Your task to perform on an android device: Open the calendar app, open the side menu, and click the "Day" option Image 0: 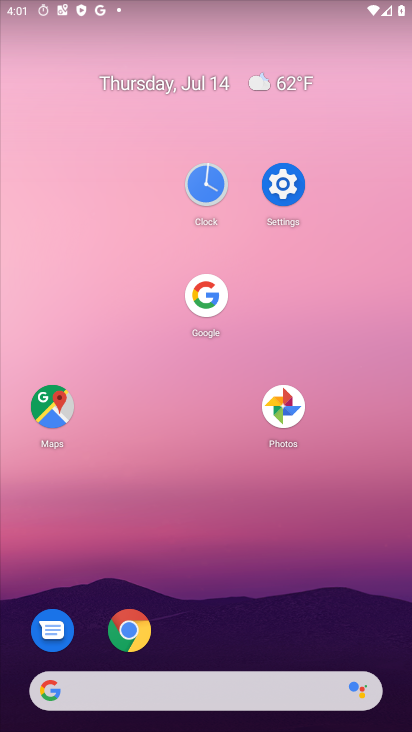
Step 0: drag from (129, 534) to (134, 145)
Your task to perform on an android device: Open the calendar app, open the side menu, and click the "Day" option Image 1: 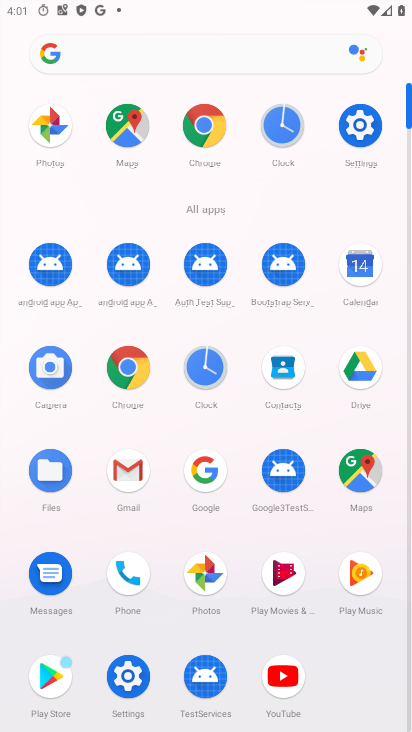
Step 1: drag from (357, 267) to (93, 196)
Your task to perform on an android device: Open the calendar app, open the side menu, and click the "Day" option Image 2: 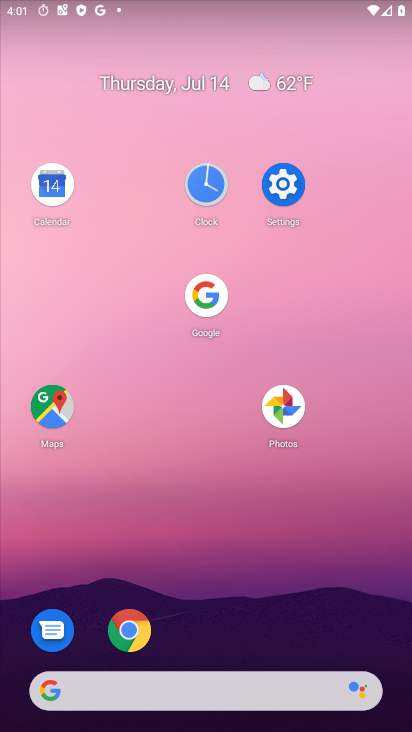
Step 2: click (58, 170)
Your task to perform on an android device: Open the calendar app, open the side menu, and click the "Day" option Image 3: 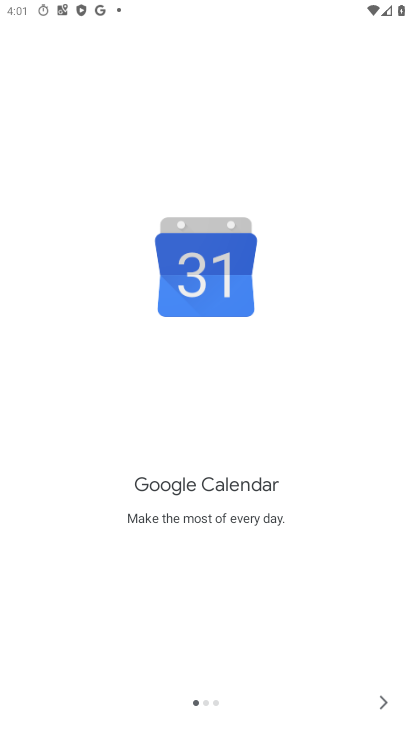
Step 3: click (386, 713)
Your task to perform on an android device: Open the calendar app, open the side menu, and click the "Day" option Image 4: 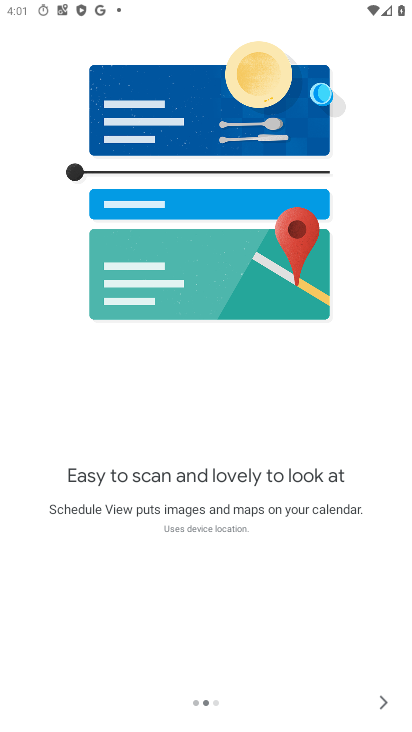
Step 4: click (386, 713)
Your task to perform on an android device: Open the calendar app, open the side menu, and click the "Day" option Image 5: 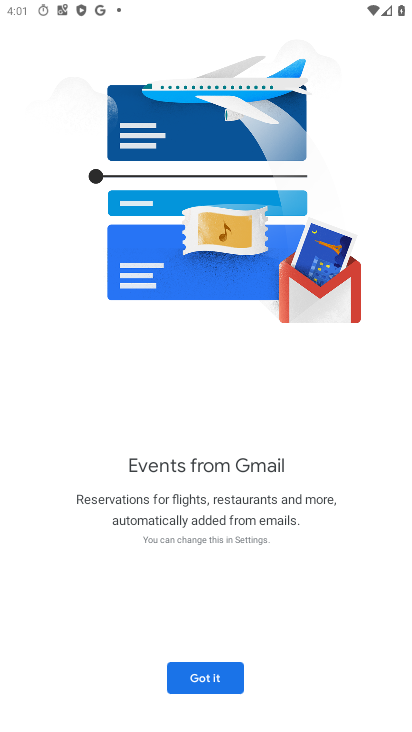
Step 5: click (186, 681)
Your task to perform on an android device: Open the calendar app, open the side menu, and click the "Day" option Image 6: 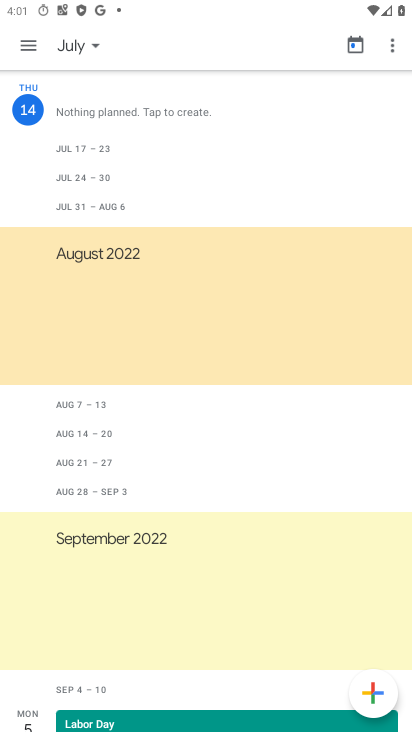
Step 6: click (21, 51)
Your task to perform on an android device: Open the calendar app, open the side menu, and click the "Day" option Image 7: 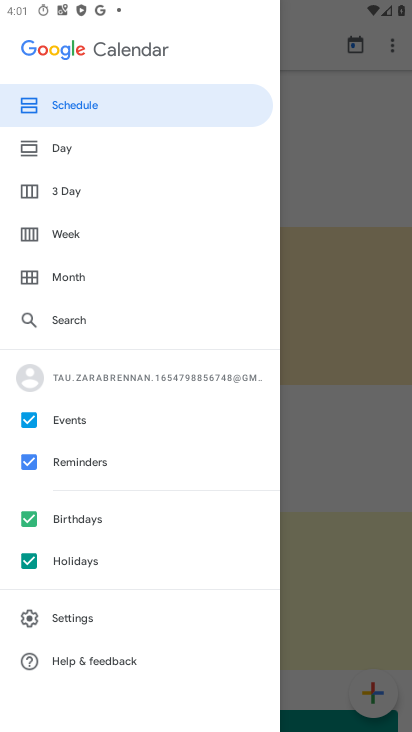
Step 7: click (77, 155)
Your task to perform on an android device: Open the calendar app, open the side menu, and click the "Day" option Image 8: 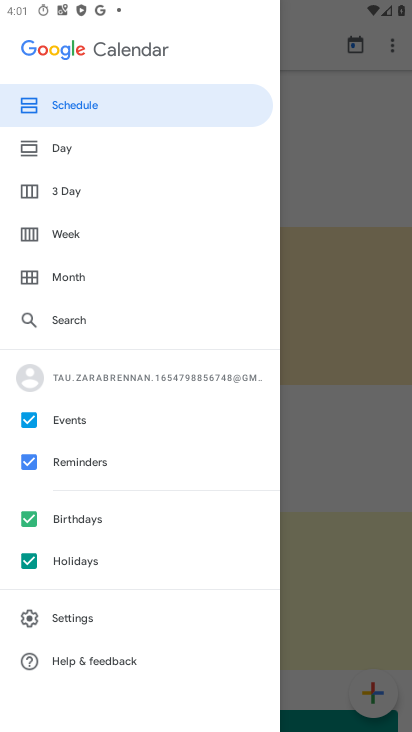
Step 8: task complete